Your task to perform on an android device: empty trash in google photos Image 0: 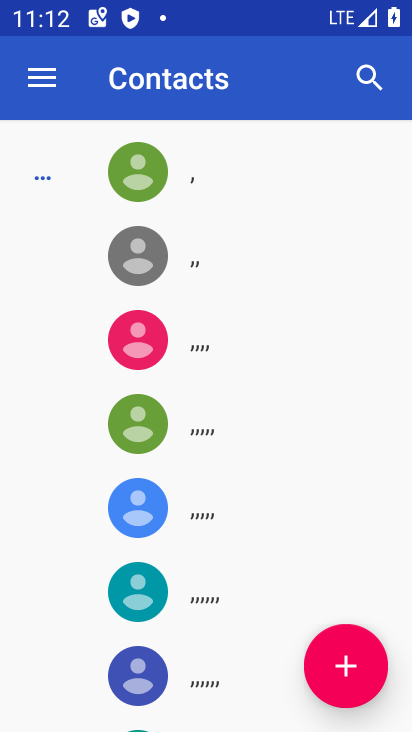
Step 0: press home button
Your task to perform on an android device: empty trash in google photos Image 1: 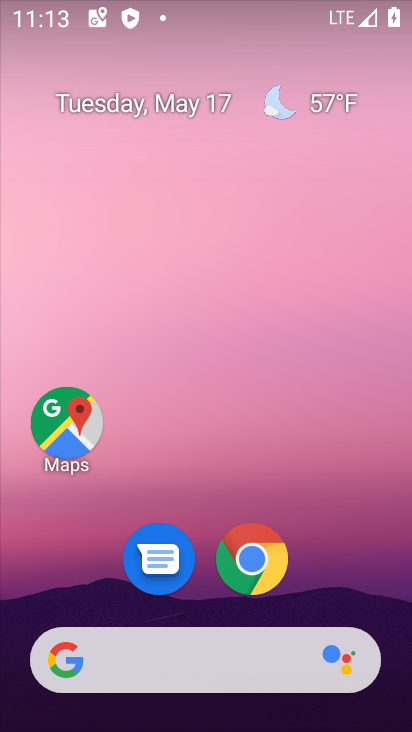
Step 1: drag from (359, 568) to (351, 75)
Your task to perform on an android device: empty trash in google photos Image 2: 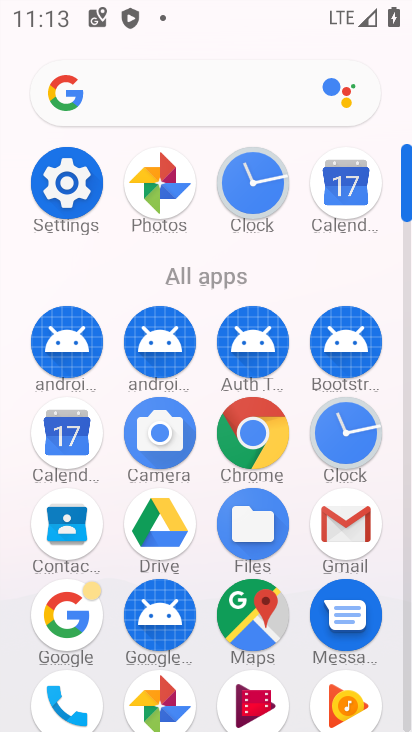
Step 2: click (186, 207)
Your task to perform on an android device: empty trash in google photos Image 3: 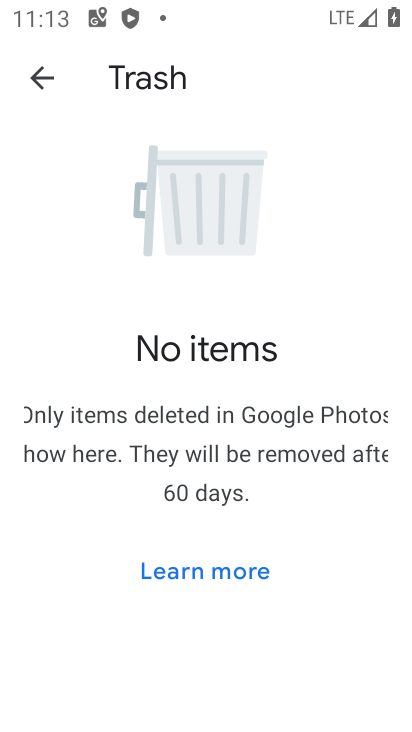
Step 3: task complete